Your task to perform on an android device: Search for sushi restaurants on Maps Image 0: 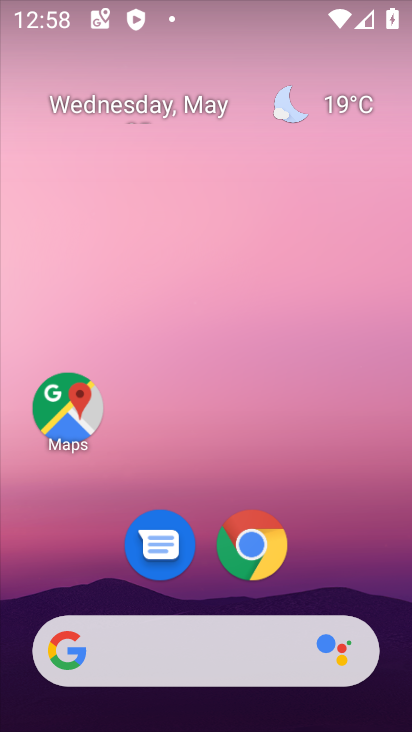
Step 0: click (75, 428)
Your task to perform on an android device: Search for sushi restaurants on Maps Image 1: 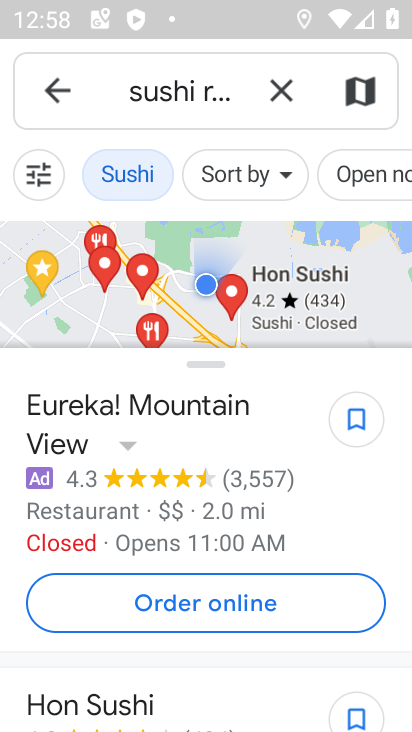
Step 1: task complete